Your task to perform on an android device: Open settings on Google Maps Image 0: 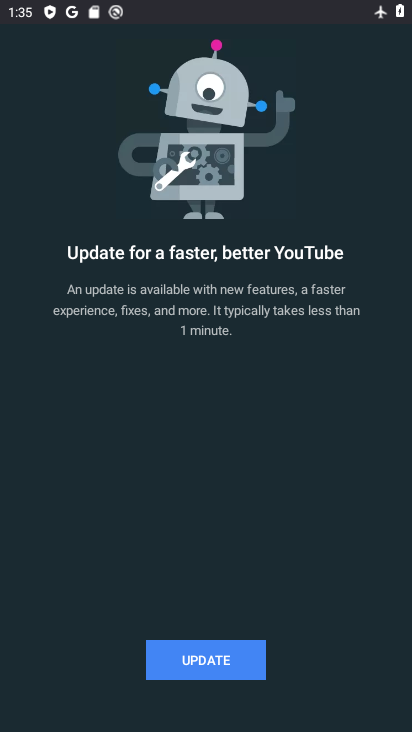
Step 0: press home button
Your task to perform on an android device: Open settings on Google Maps Image 1: 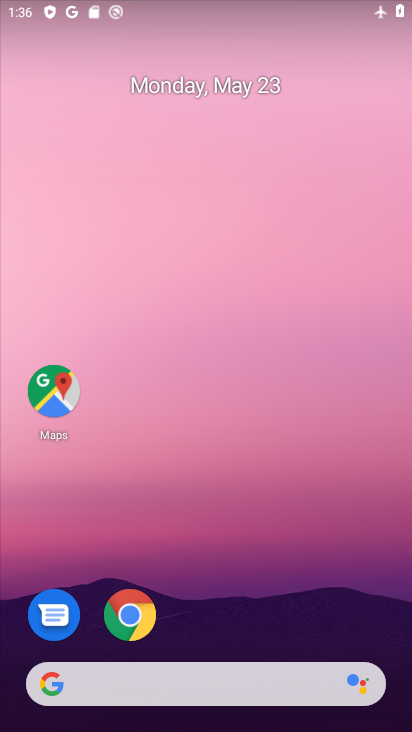
Step 1: drag from (237, 658) to (138, 172)
Your task to perform on an android device: Open settings on Google Maps Image 2: 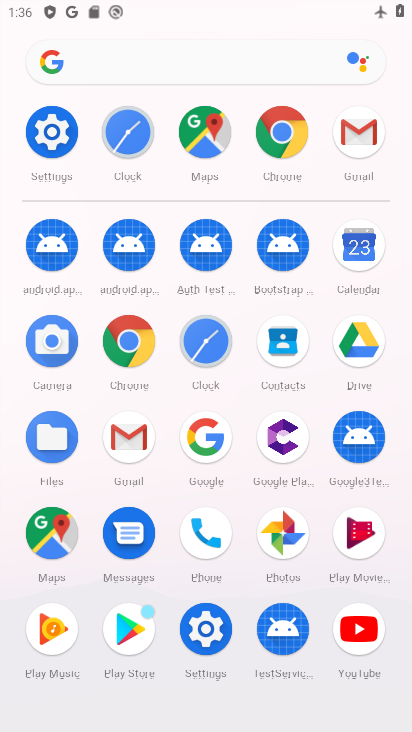
Step 2: click (40, 552)
Your task to perform on an android device: Open settings on Google Maps Image 3: 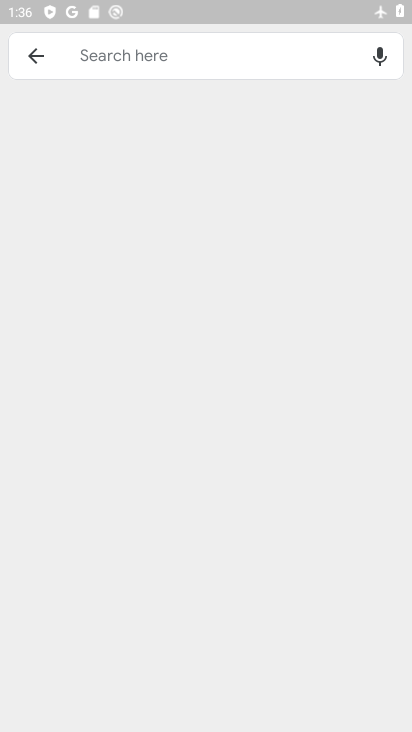
Step 3: click (32, 51)
Your task to perform on an android device: Open settings on Google Maps Image 4: 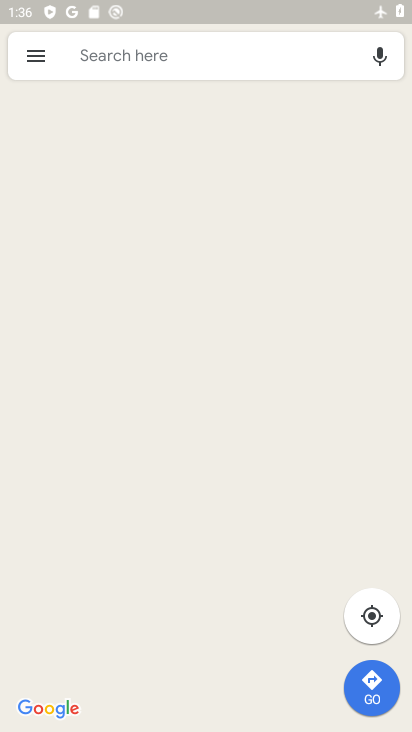
Step 4: click (32, 51)
Your task to perform on an android device: Open settings on Google Maps Image 5: 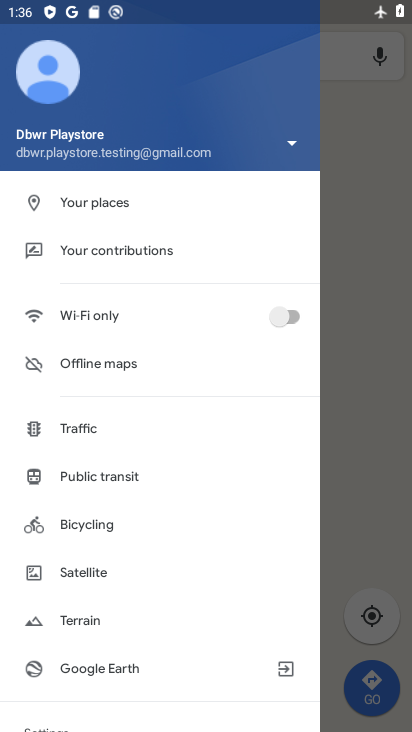
Step 5: drag from (100, 601) to (86, 283)
Your task to perform on an android device: Open settings on Google Maps Image 6: 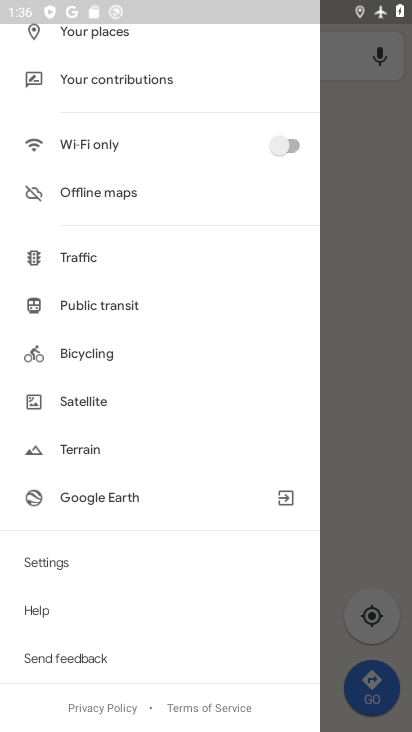
Step 6: click (68, 557)
Your task to perform on an android device: Open settings on Google Maps Image 7: 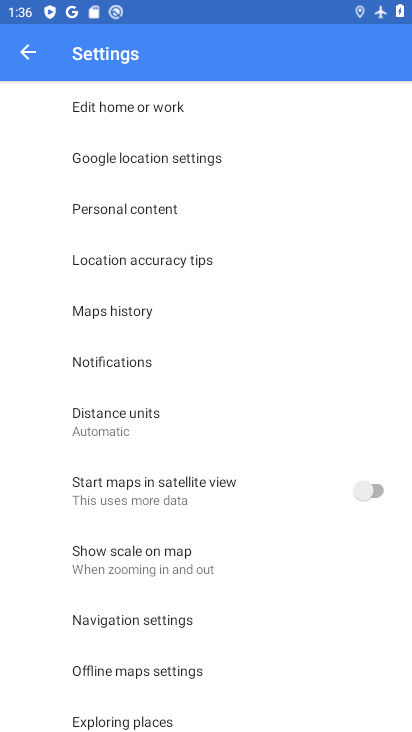
Step 7: task complete